Your task to perform on an android device: Show me recent news Image 0: 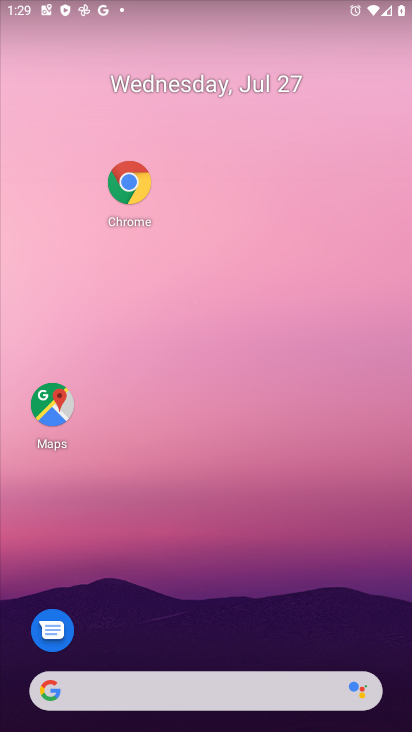
Step 0: click (175, 690)
Your task to perform on an android device: Show me recent news Image 1: 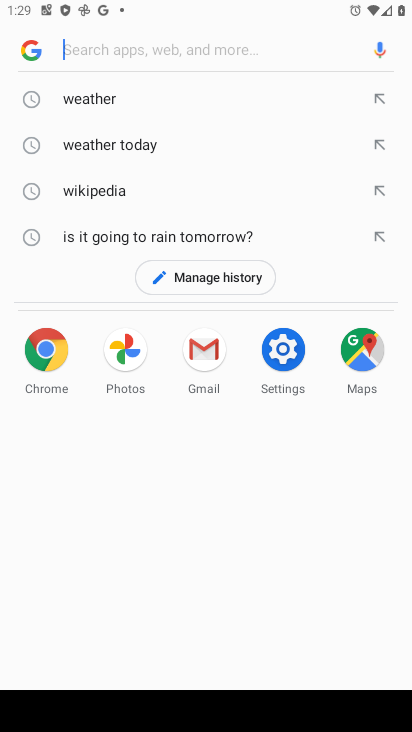
Step 1: type "recent news "
Your task to perform on an android device: Show me recent news Image 2: 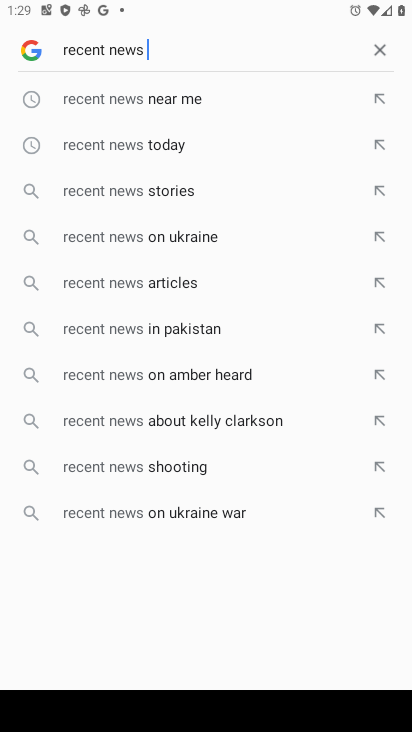
Step 2: press enter
Your task to perform on an android device: Show me recent news Image 3: 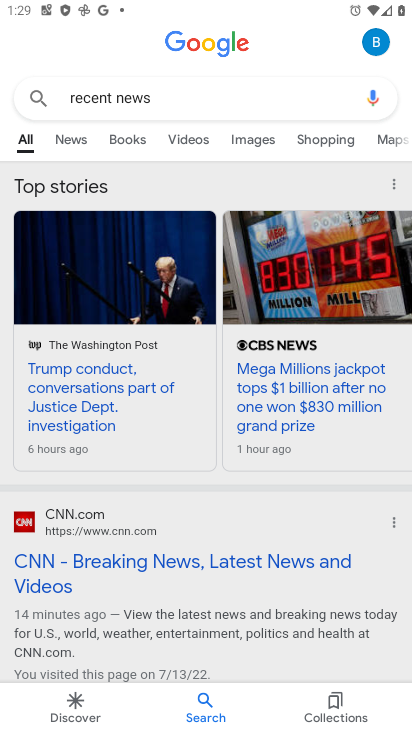
Step 3: task complete